Your task to perform on an android device: add a label to a message in the gmail app Image 0: 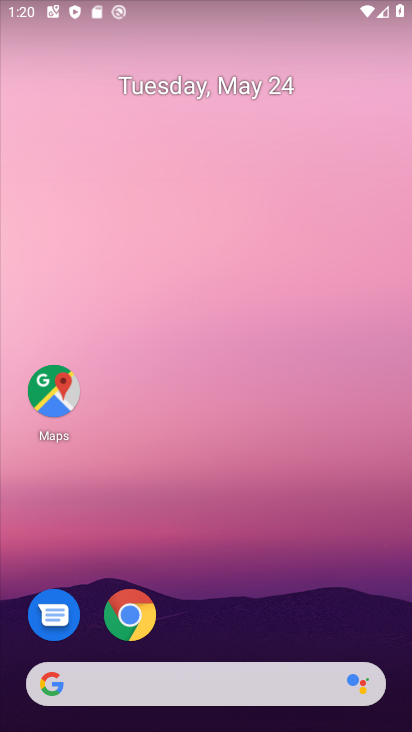
Step 0: drag from (276, 690) to (301, 212)
Your task to perform on an android device: add a label to a message in the gmail app Image 1: 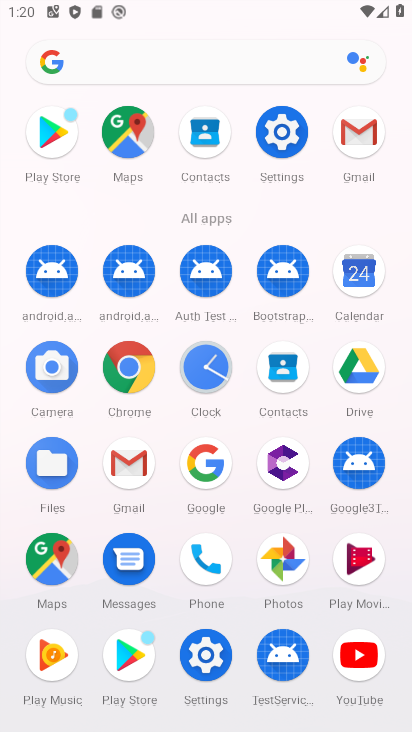
Step 1: click (349, 135)
Your task to perform on an android device: add a label to a message in the gmail app Image 2: 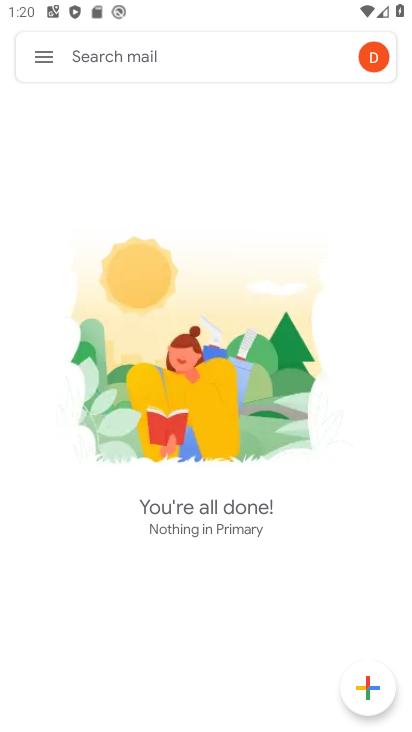
Step 2: click (39, 49)
Your task to perform on an android device: add a label to a message in the gmail app Image 3: 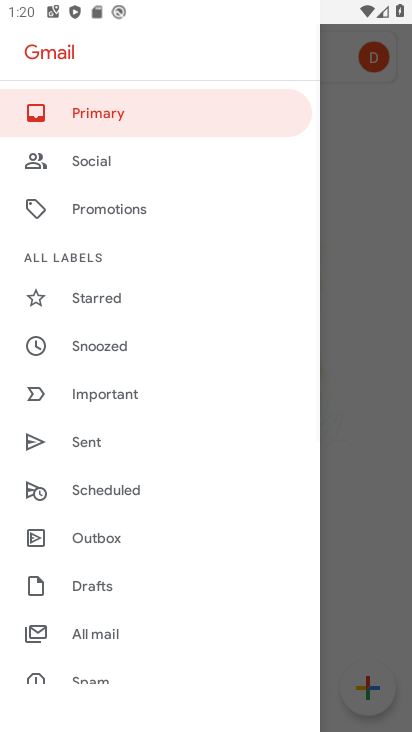
Step 3: click (129, 630)
Your task to perform on an android device: add a label to a message in the gmail app Image 4: 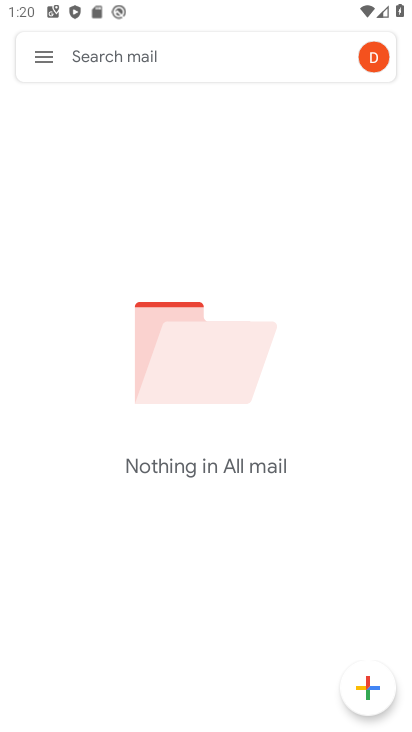
Step 4: task complete